Your task to perform on an android device: move a message to another label in the gmail app Image 0: 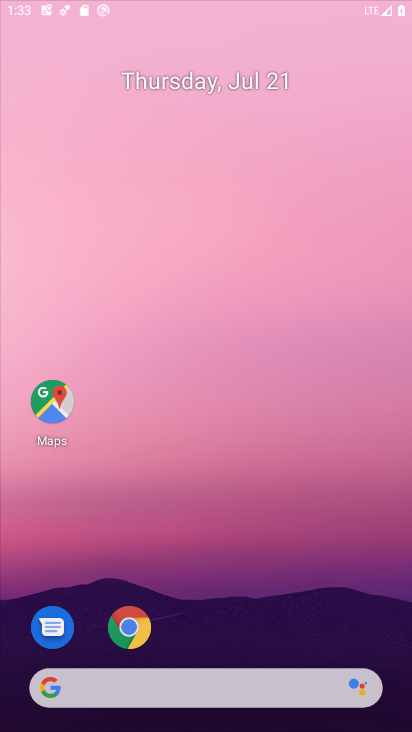
Step 0: press home button
Your task to perform on an android device: move a message to another label in the gmail app Image 1: 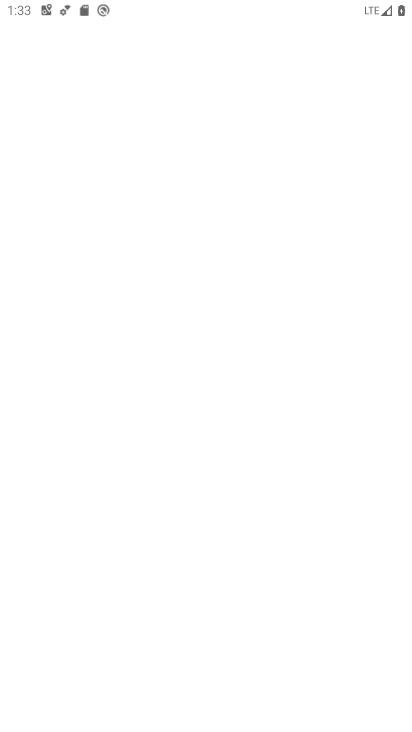
Step 1: drag from (261, 623) to (259, 8)
Your task to perform on an android device: move a message to another label in the gmail app Image 2: 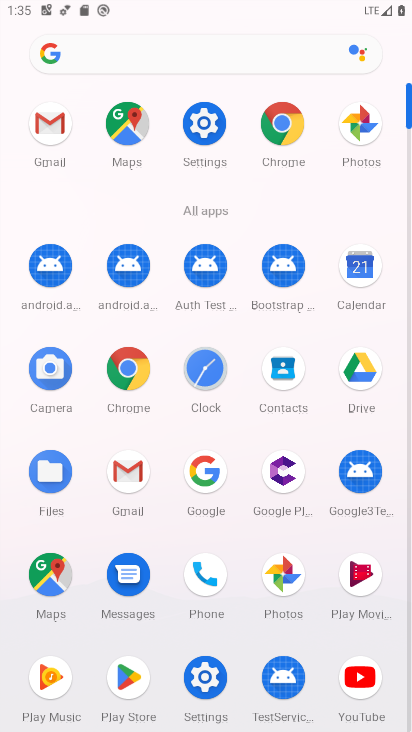
Step 2: click (141, 457)
Your task to perform on an android device: move a message to another label in the gmail app Image 3: 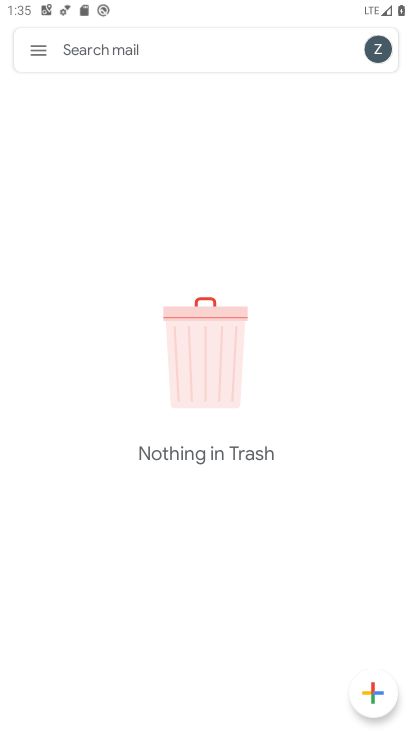
Step 3: task complete